Your task to perform on an android device: Go to Google Image 0: 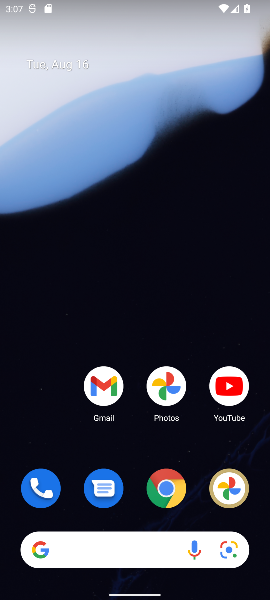
Step 0: click (148, 550)
Your task to perform on an android device: Go to Google Image 1: 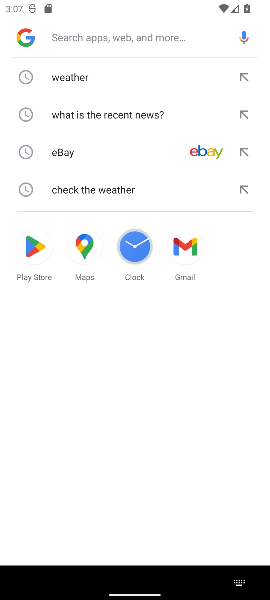
Step 1: press home button
Your task to perform on an android device: Go to Google Image 2: 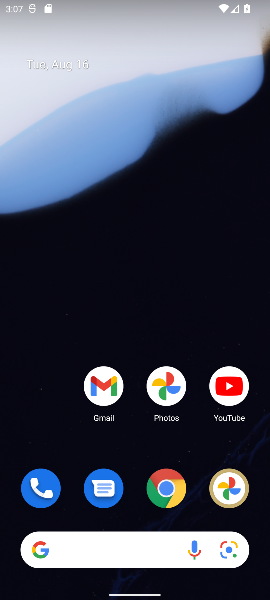
Step 2: drag from (44, 400) to (99, 125)
Your task to perform on an android device: Go to Google Image 3: 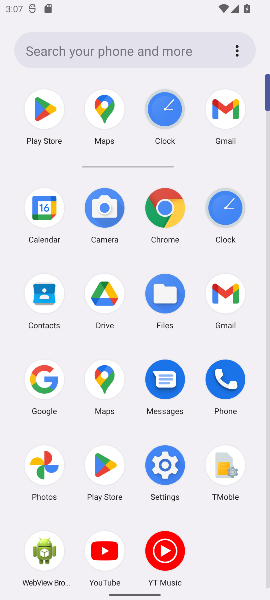
Step 3: click (173, 212)
Your task to perform on an android device: Go to Google Image 4: 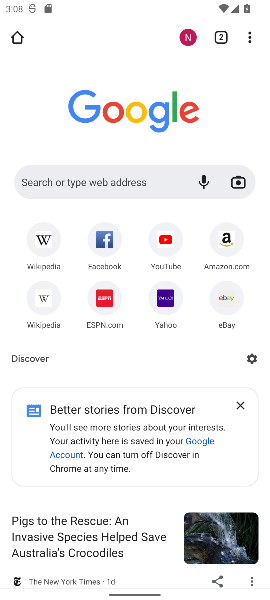
Step 4: task complete